Your task to perform on an android device: Open Maps and search for coffee Image 0: 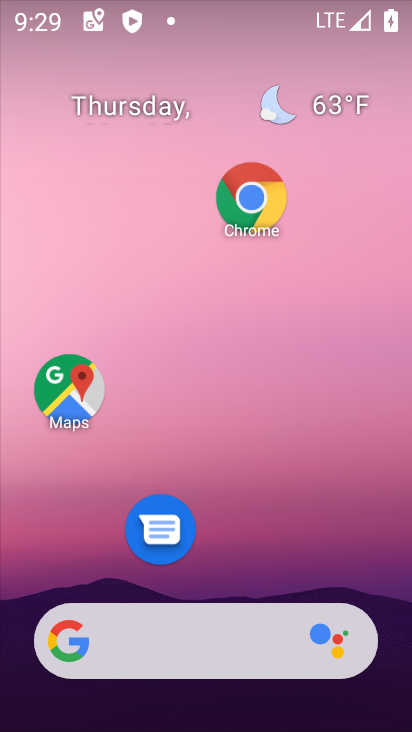
Step 0: drag from (250, 533) to (284, 366)
Your task to perform on an android device: Open Maps and search for coffee Image 1: 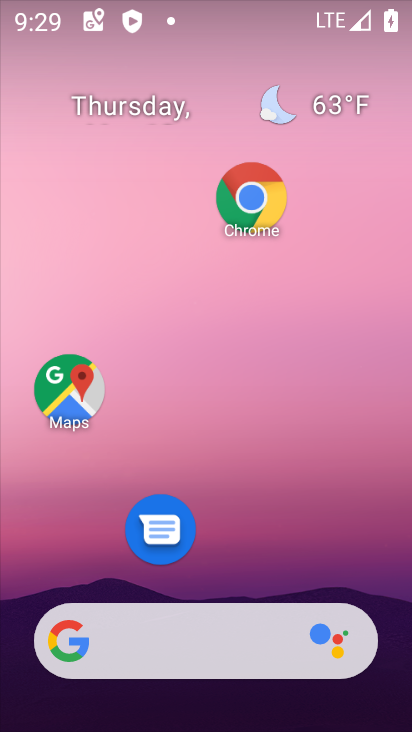
Step 1: drag from (358, 522) to (372, 256)
Your task to perform on an android device: Open Maps and search for coffee Image 2: 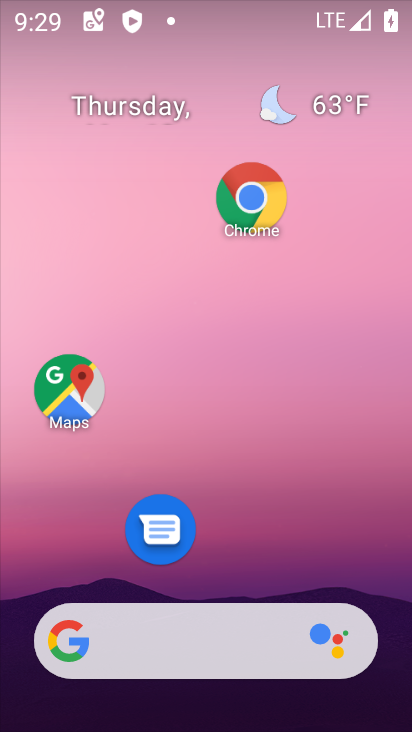
Step 2: drag from (297, 597) to (353, 273)
Your task to perform on an android device: Open Maps and search for coffee Image 3: 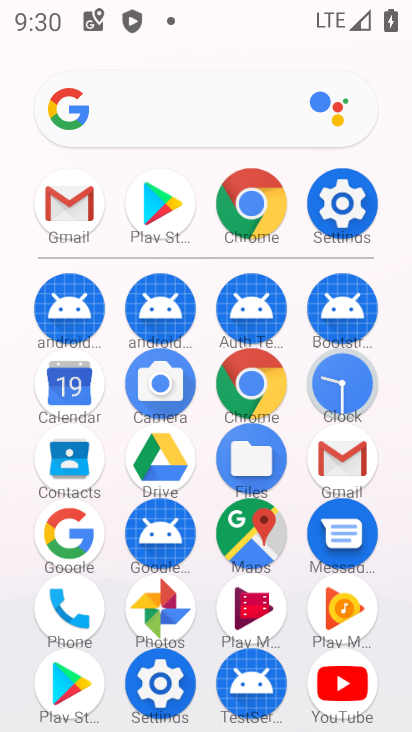
Step 3: click (243, 524)
Your task to perform on an android device: Open Maps and search for coffee Image 4: 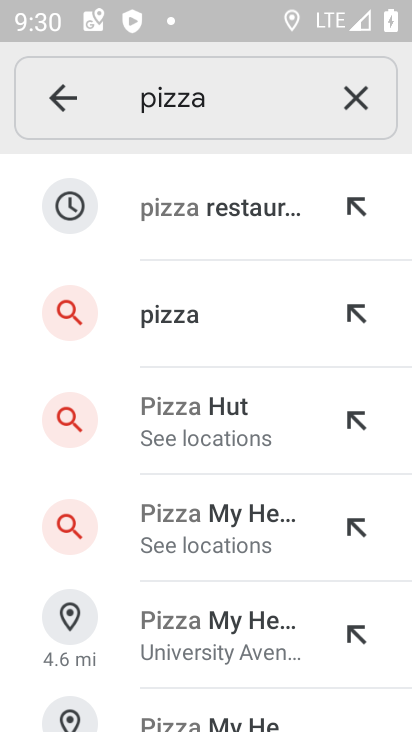
Step 4: click (364, 109)
Your task to perform on an android device: Open Maps and search for coffee Image 5: 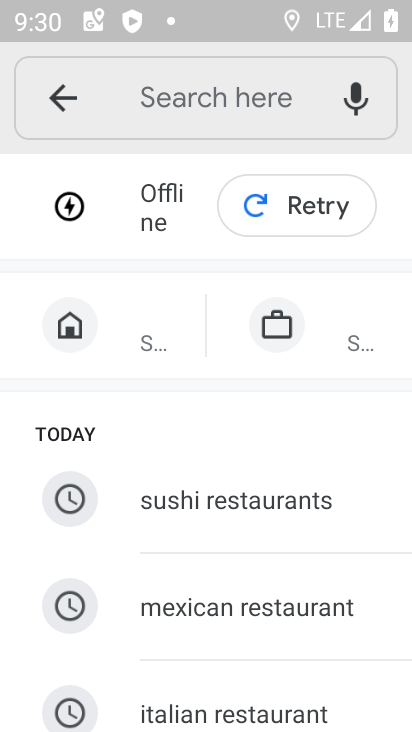
Step 5: click (277, 123)
Your task to perform on an android device: Open Maps and search for coffee Image 6: 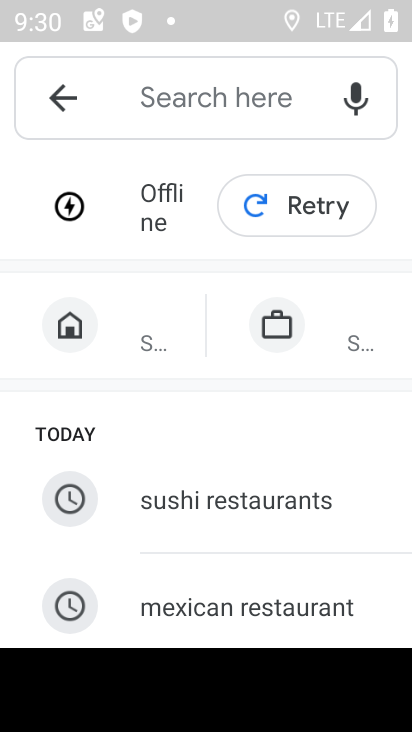
Step 6: type "coffee"
Your task to perform on an android device: Open Maps and search for coffee Image 7: 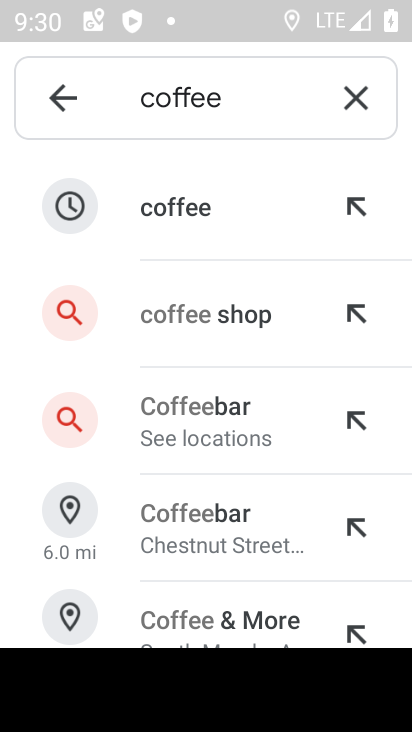
Step 7: click (318, 234)
Your task to perform on an android device: Open Maps and search for coffee Image 8: 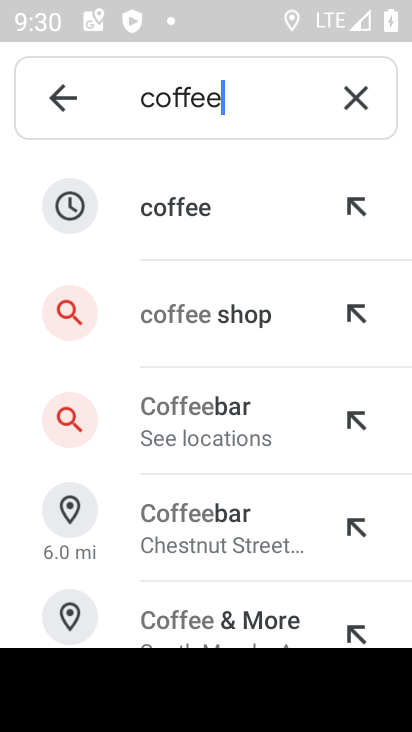
Step 8: click (274, 221)
Your task to perform on an android device: Open Maps and search for coffee Image 9: 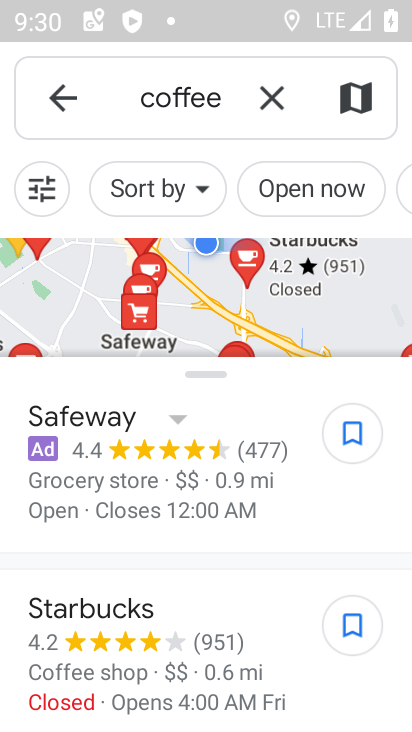
Step 9: click (362, 198)
Your task to perform on an android device: Open Maps and search for coffee Image 10: 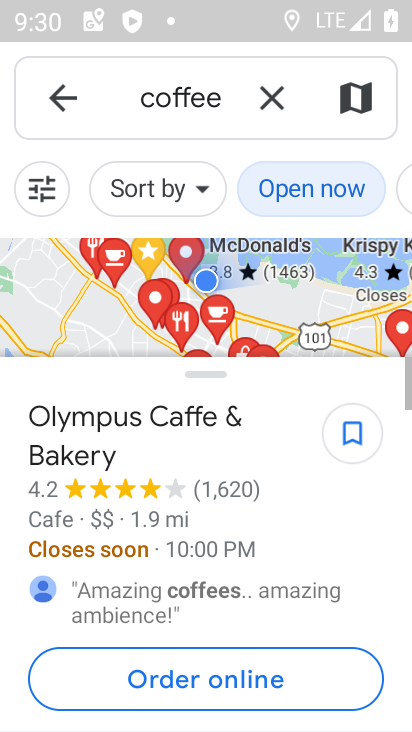
Step 10: task complete